Your task to perform on an android device: change the clock display to digital Image 0: 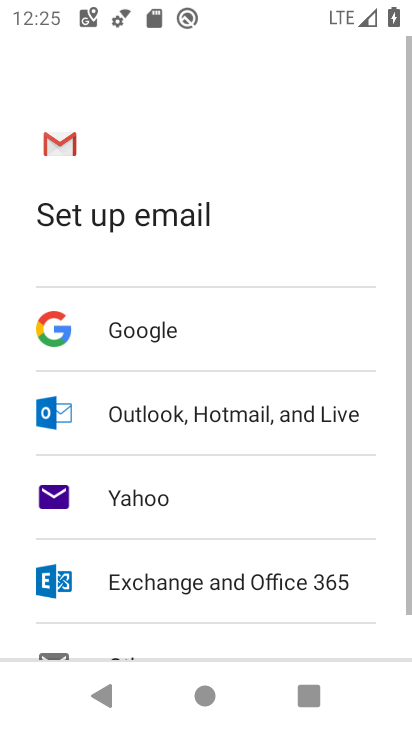
Step 0: press home button
Your task to perform on an android device: change the clock display to digital Image 1: 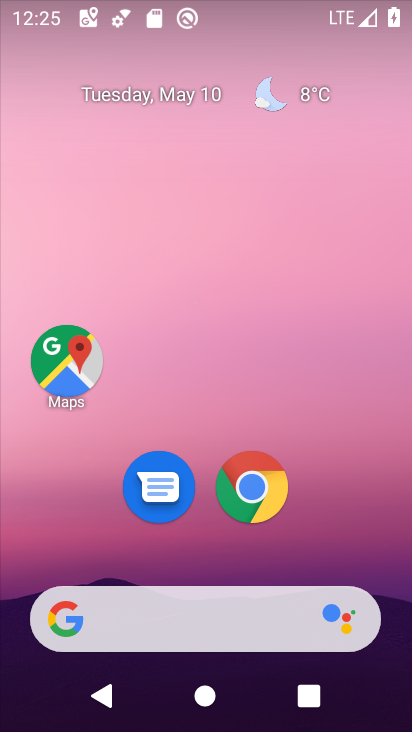
Step 1: drag from (195, 564) to (272, 46)
Your task to perform on an android device: change the clock display to digital Image 2: 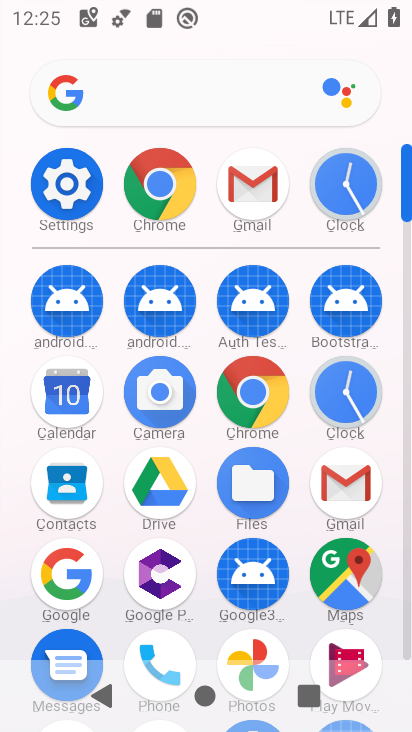
Step 2: click (342, 174)
Your task to perform on an android device: change the clock display to digital Image 3: 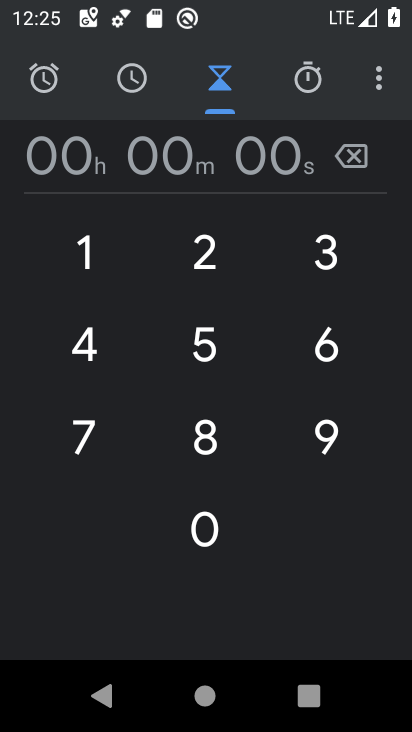
Step 3: click (376, 75)
Your task to perform on an android device: change the clock display to digital Image 4: 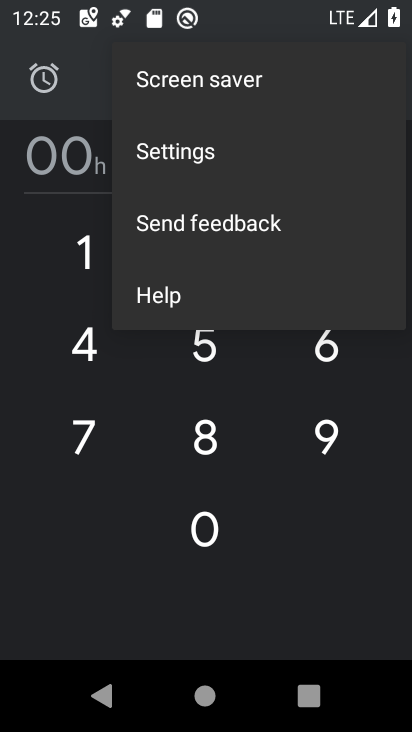
Step 4: click (226, 155)
Your task to perform on an android device: change the clock display to digital Image 5: 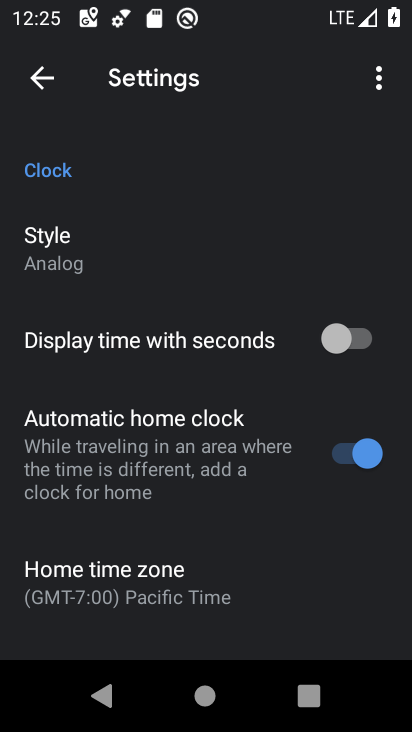
Step 5: click (105, 245)
Your task to perform on an android device: change the clock display to digital Image 6: 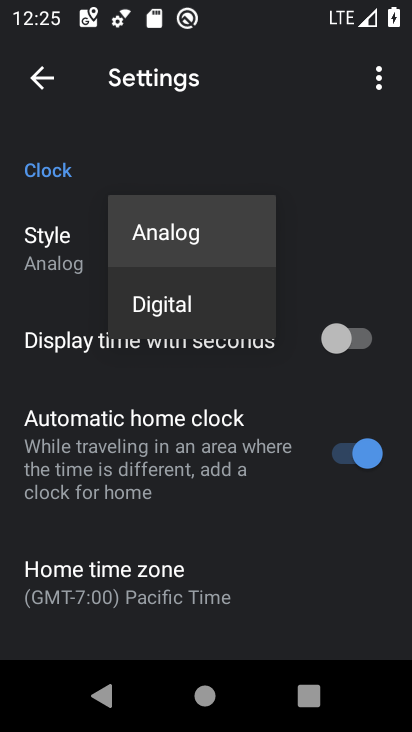
Step 6: click (222, 295)
Your task to perform on an android device: change the clock display to digital Image 7: 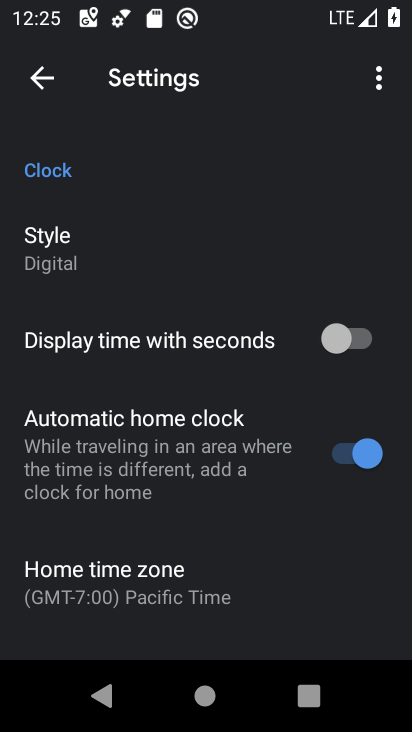
Step 7: task complete